Your task to perform on an android device: Go to sound settings Image 0: 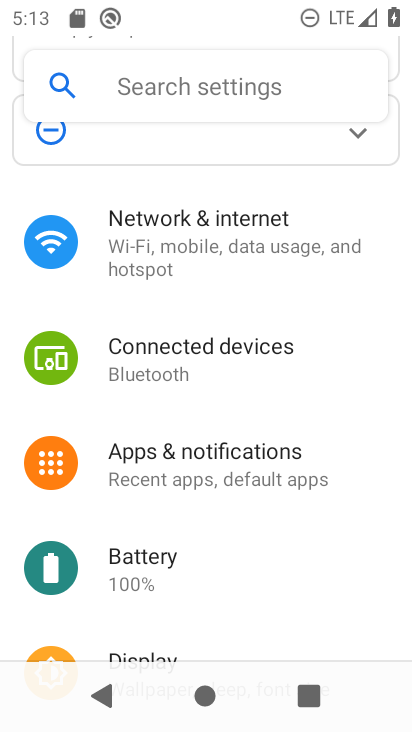
Step 0: drag from (147, 621) to (229, 123)
Your task to perform on an android device: Go to sound settings Image 1: 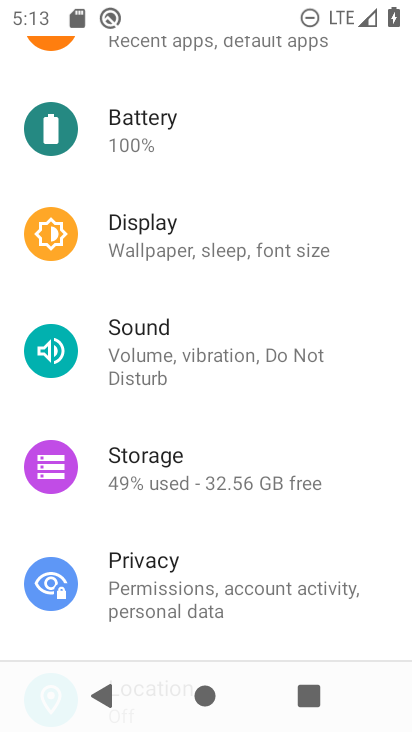
Step 1: click (179, 344)
Your task to perform on an android device: Go to sound settings Image 2: 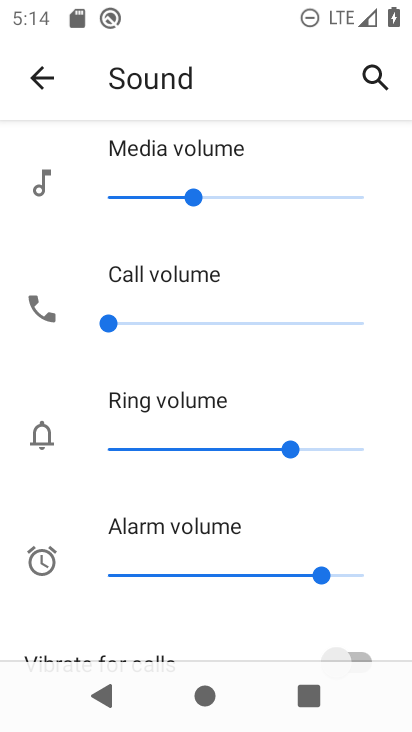
Step 2: task complete